Your task to perform on an android device: open a bookmark in the chrome app Image 0: 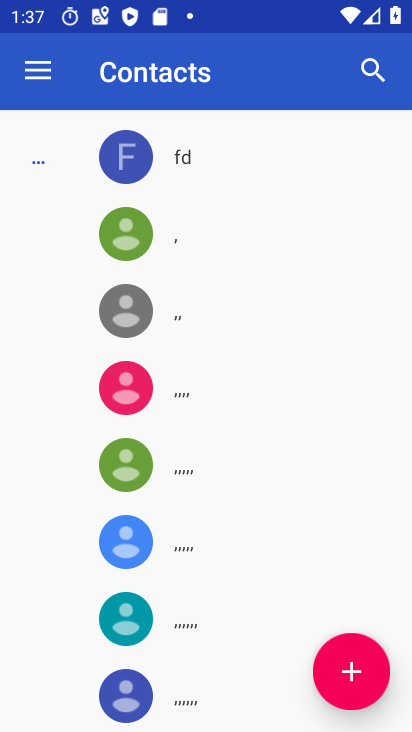
Step 0: press home button
Your task to perform on an android device: open a bookmark in the chrome app Image 1: 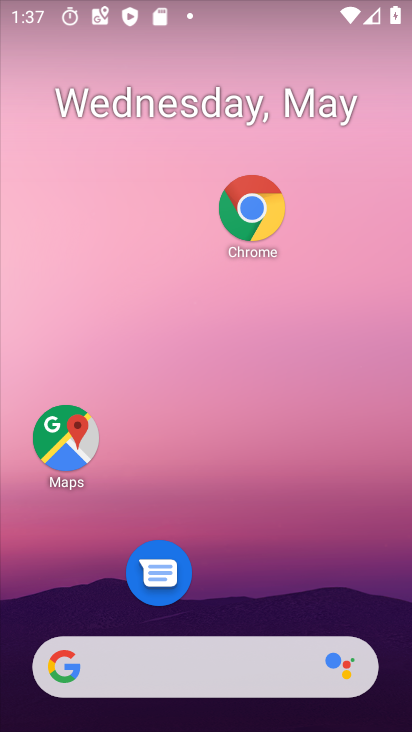
Step 1: click (247, 219)
Your task to perform on an android device: open a bookmark in the chrome app Image 2: 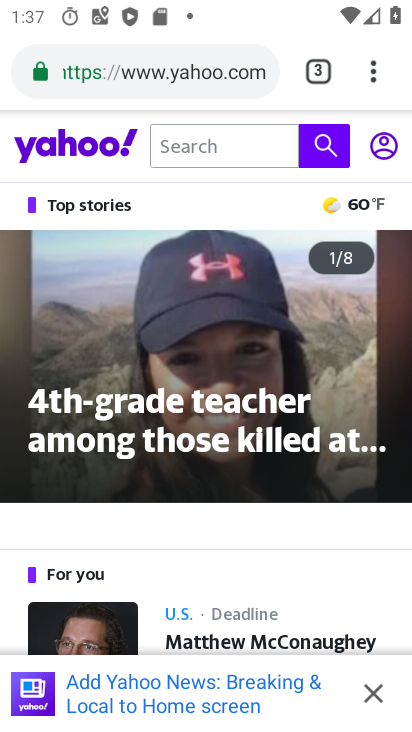
Step 2: click (381, 76)
Your task to perform on an android device: open a bookmark in the chrome app Image 3: 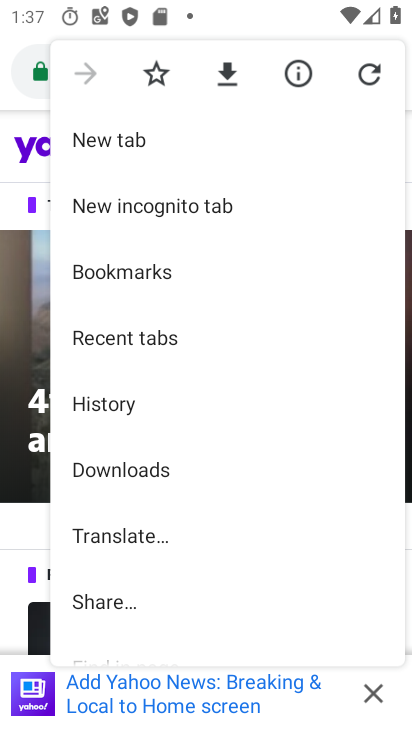
Step 3: click (188, 263)
Your task to perform on an android device: open a bookmark in the chrome app Image 4: 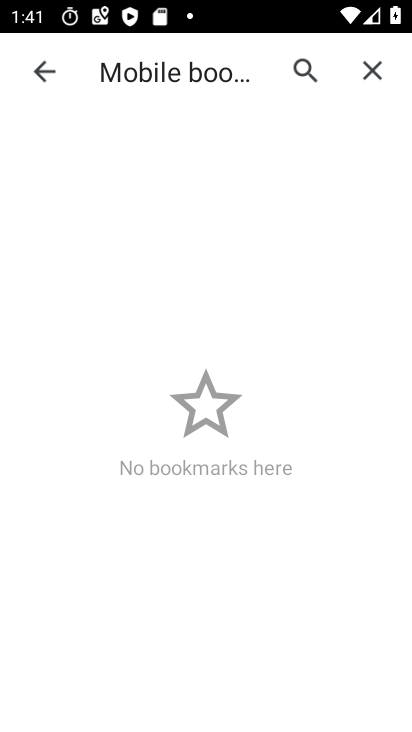
Step 4: task complete